Your task to perform on an android device: Open Android settings Image 0: 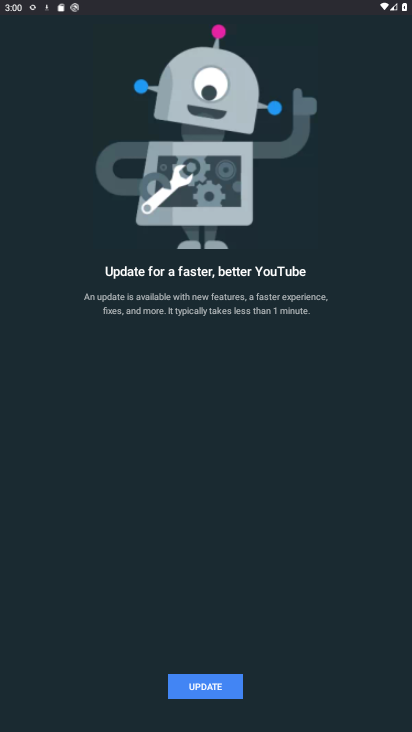
Step 0: press back button
Your task to perform on an android device: Open Android settings Image 1: 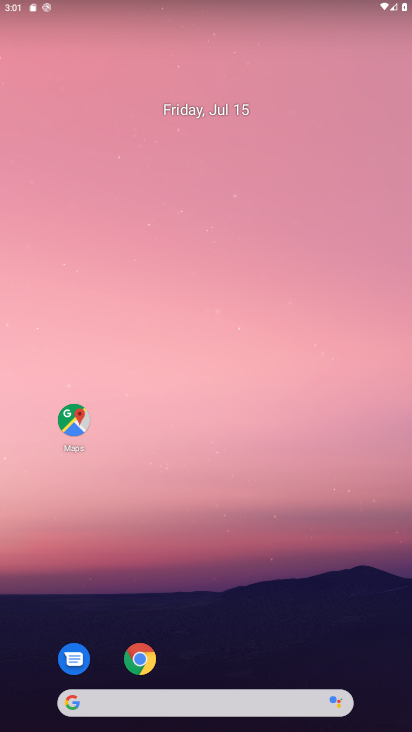
Step 1: drag from (311, 634) to (259, 17)
Your task to perform on an android device: Open Android settings Image 2: 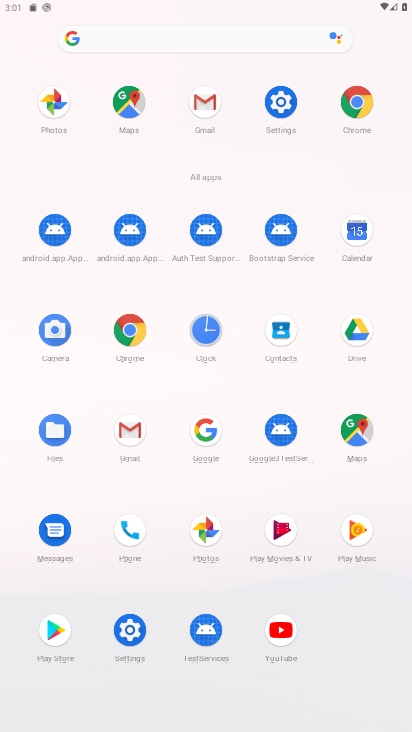
Step 2: click (123, 628)
Your task to perform on an android device: Open Android settings Image 3: 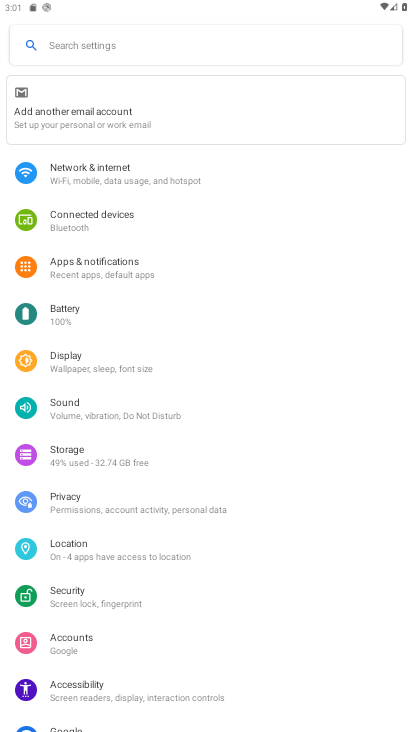
Step 3: task complete